Your task to perform on an android device: choose inbox layout in the gmail app Image 0: 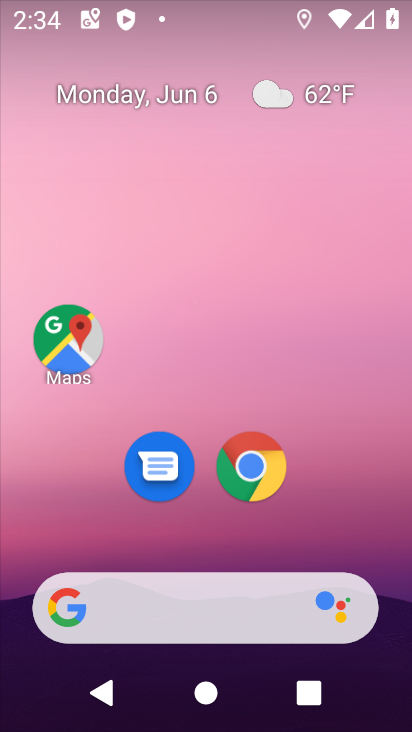
Step 0: drag from (265, 567) to (242, 246)
Your task to perform on an android device: choose inbox layout in the gmail app Image 1: 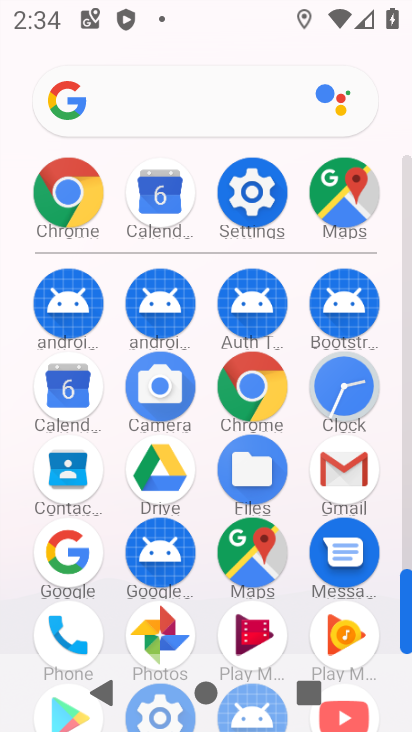
Step 1: click (349, 482)
Your task to perform on an android device: choose inbox layout in the gmail app Image 2: 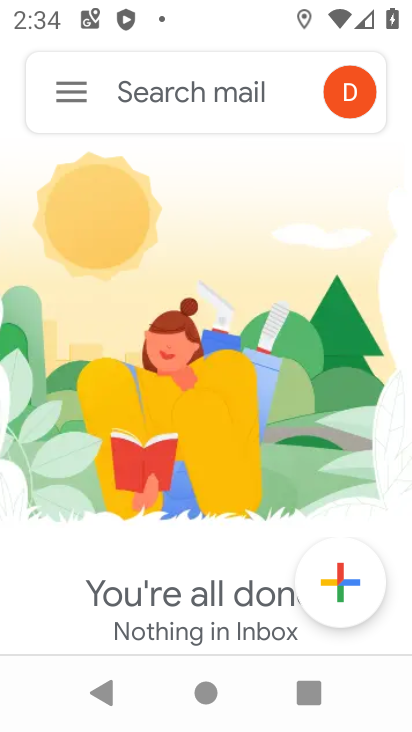
Step 2: click (72, 104)
Your task to perform on an android device: choose inbox layout in the gmail app Image 3: 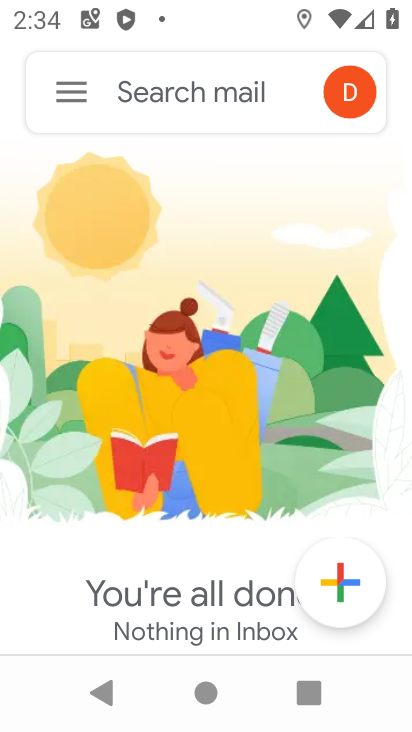
Step 3: click (73, 91)
Your task to perform on an android device: choose inbox layout in the gmail app Image 4: 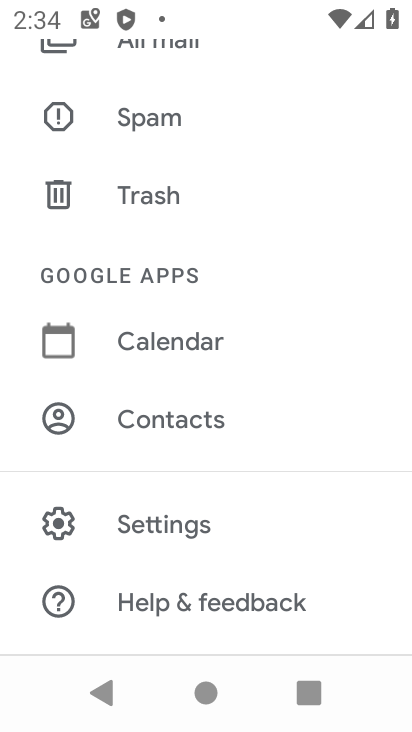
Step 4: click (159, 525)
Your task to perform on an android device: choose inbox layout in the gmail app Image 5: 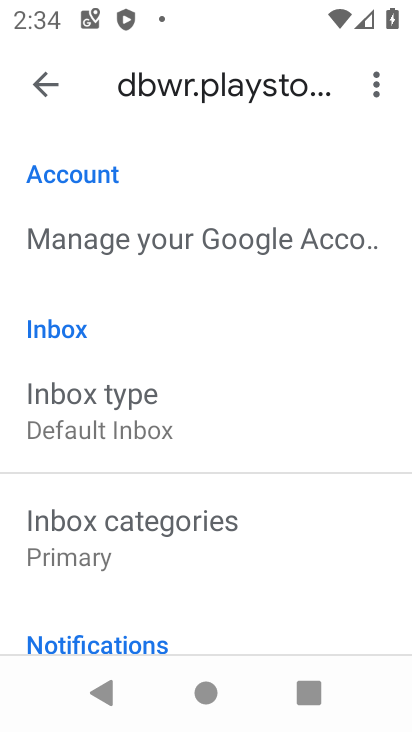
Step 5: task complete